Your task to perform on an android device: find which apps use the phone's location Image 0: 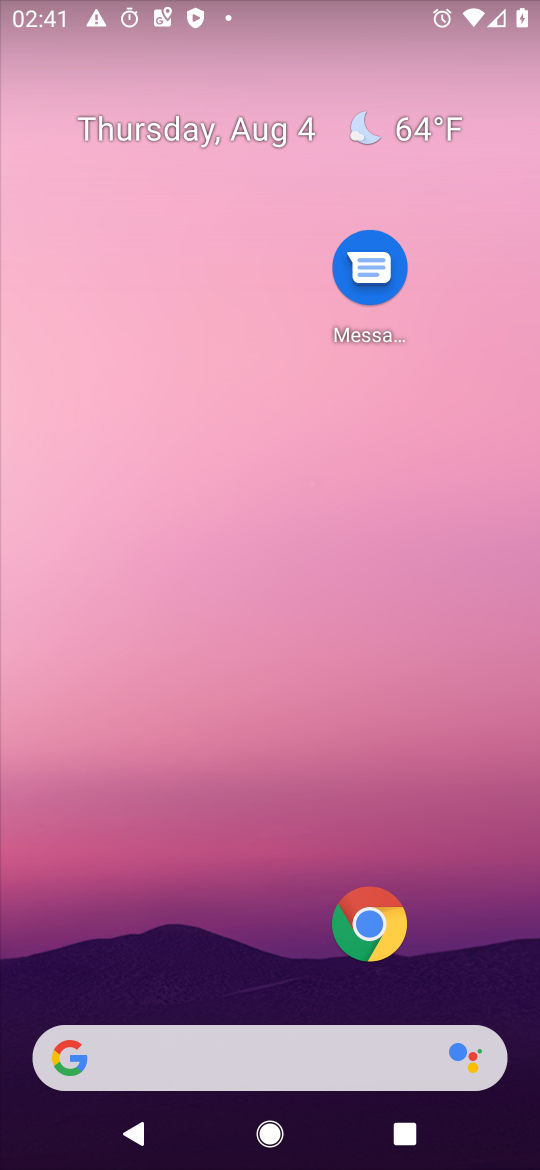
Step 0: drag from (128, 598) to (140, 111)
Your task to perform on an android device: find which apps use the phone's location Image 1: 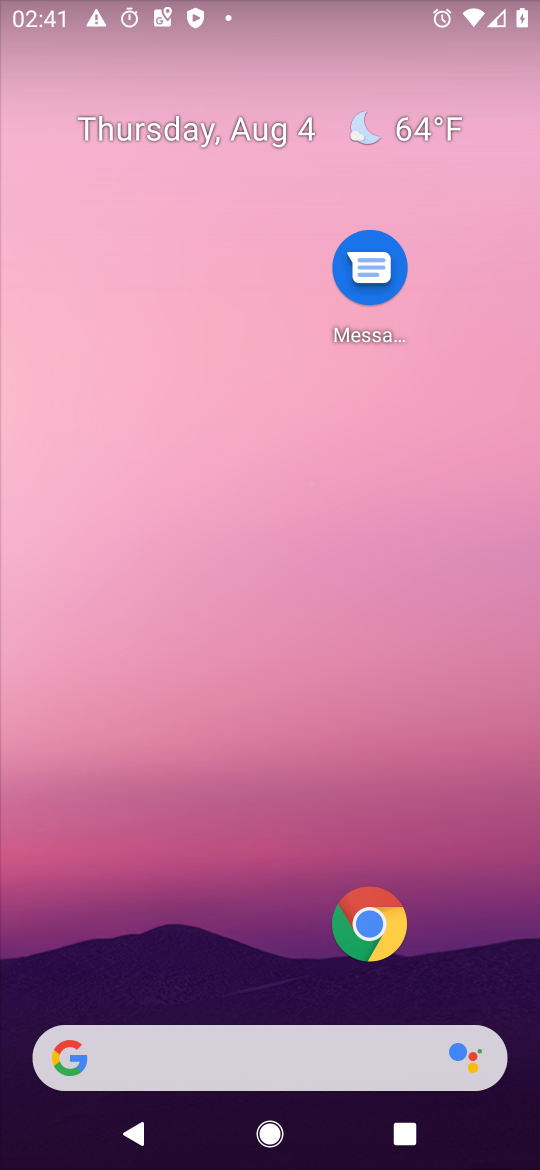
Step 1: drag from (60, 1108) to (175, 47)
Your task to perform on an android device: find which apps use the phone's location Image 2: 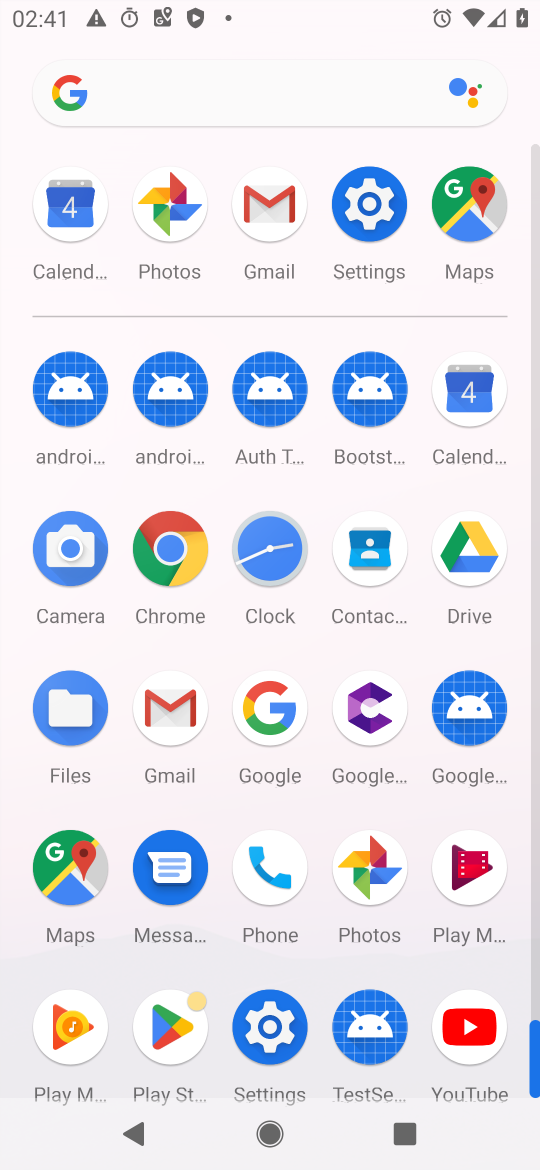
Step 2: click (259, 1045)
Your task to perform on an android device: find which apps use the phone's location Image 3: 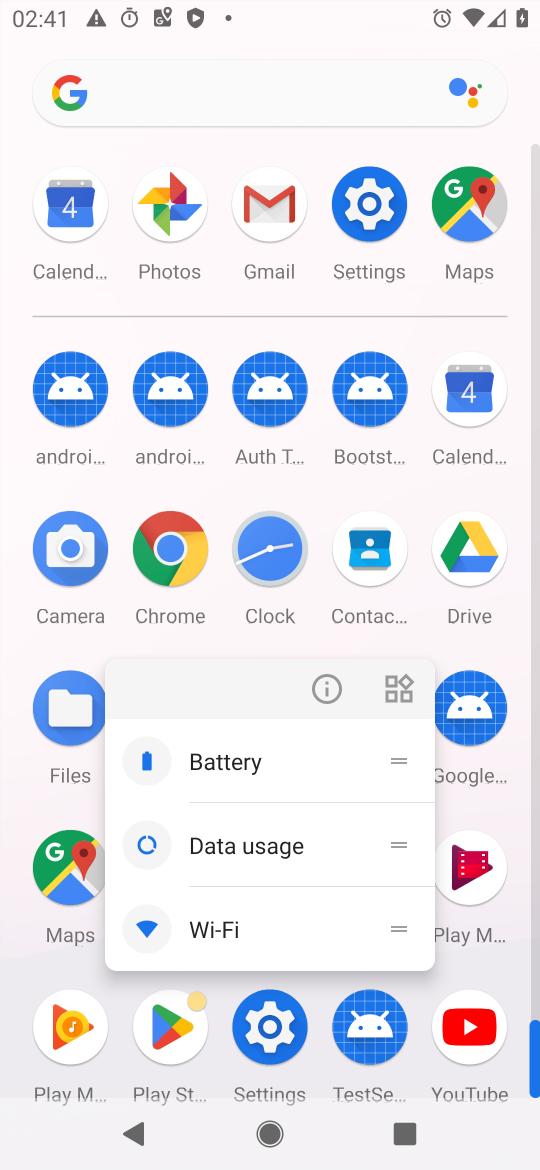
Step 3: click (272, 1031)
Your task to perform on an android device: find which apps use the phone's location Image 4: 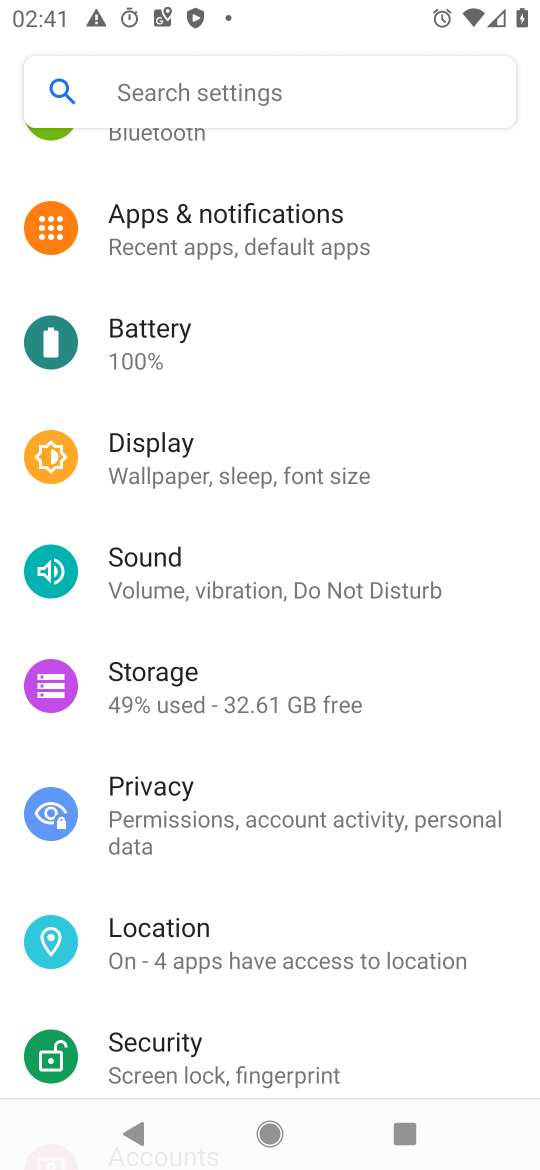
Step 4: click (184, 948)
Your task to perform on an android device: find which apps use the phone's location Image 5: 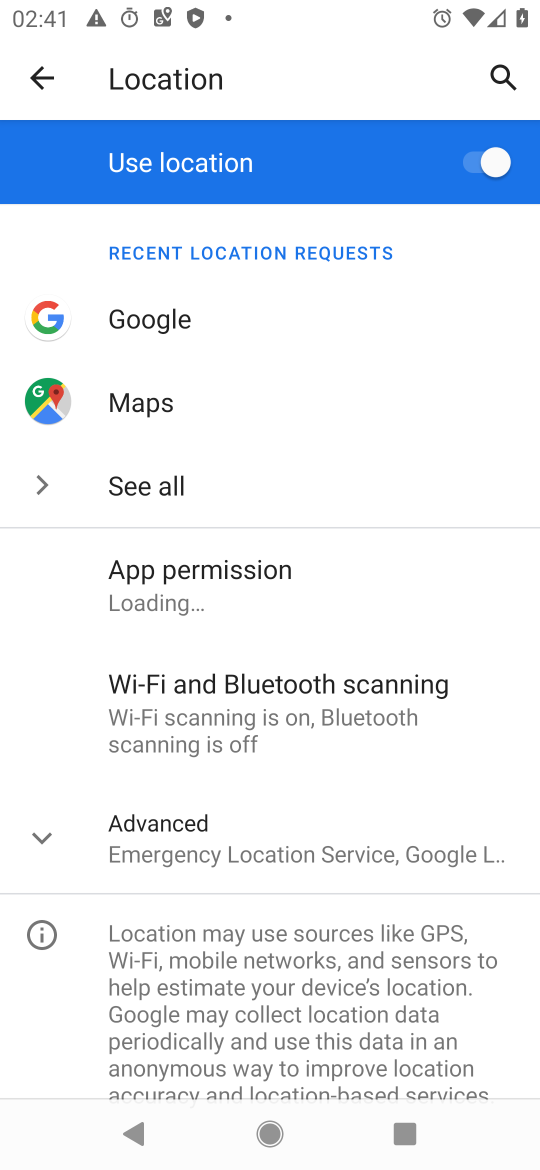
Step 5: click (161, 587)
Your task to perform on an android device: find which apps use the phone's location Image 6: 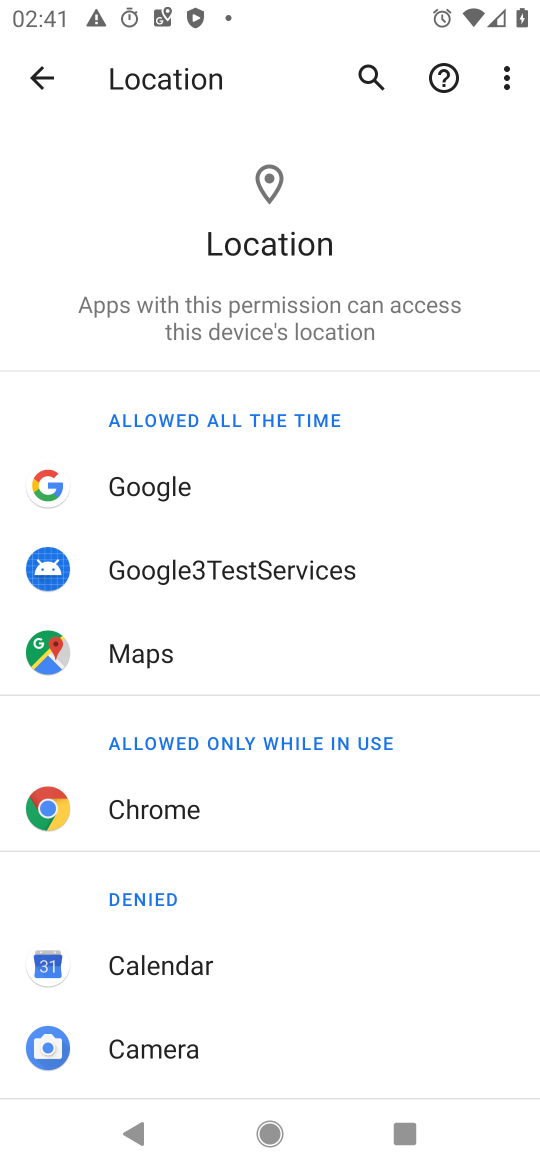
Step 6: task complete